Your task to perform on an android device: Go to display settings Image 0: 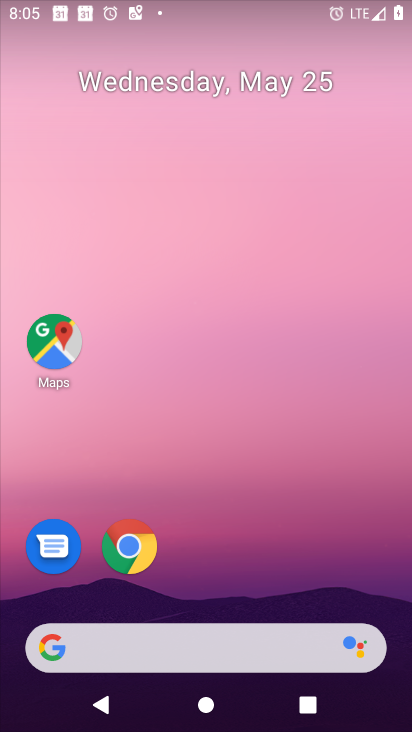
Step 0: drag from (364, 570) to (380, 224)
Your task to perform on an android device: Go to display settings Image 1: 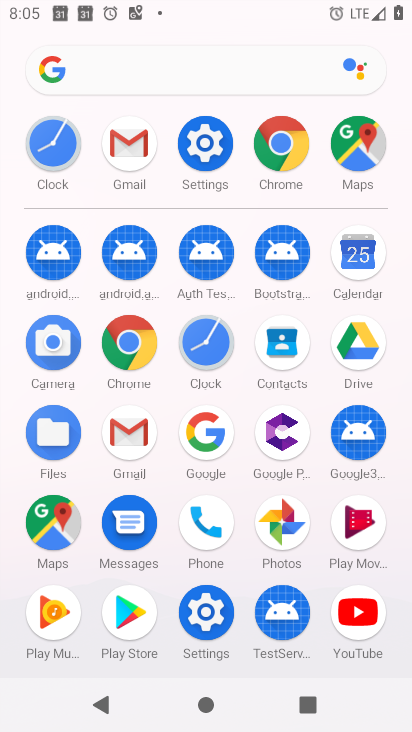
Step 1: click (208, 618)
Your task to perform on an android device: Go to display settings Image 2: 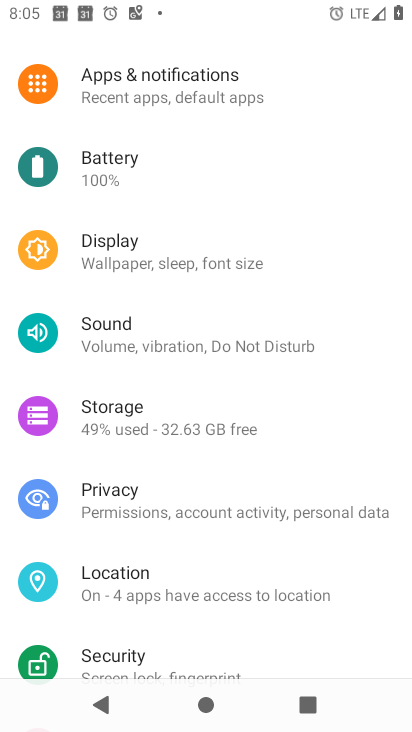
Step 2: drag from (216, 600) to (270, 225)
Your task to perform on an android device: Go to display settings Image 3: 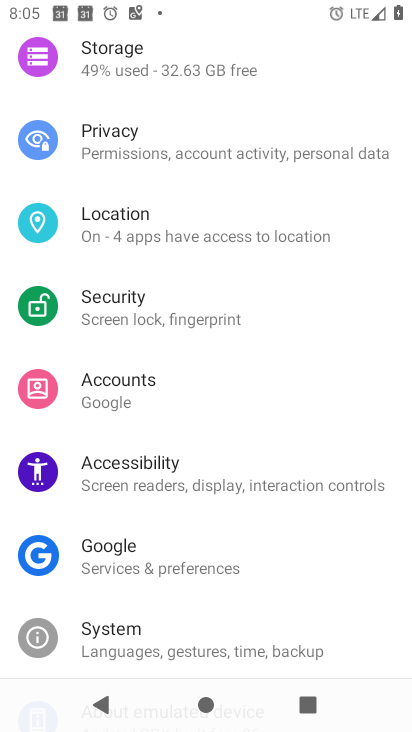
Step 3: drag from (313, 477) to (343, 300)
Your task to perform on an android device: Go to display settings Image 4: 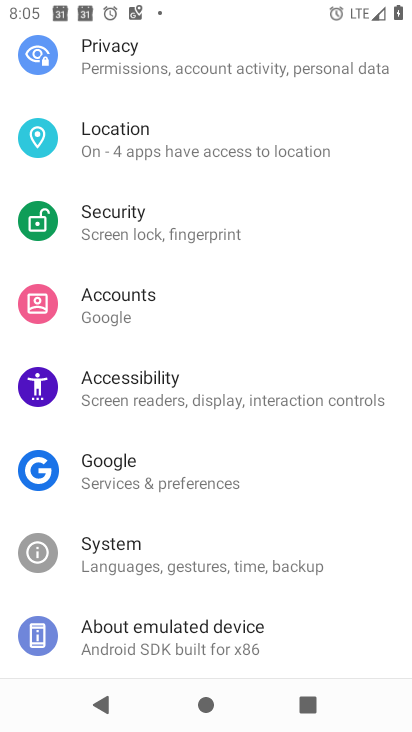
Step 4: drag from (312, 513) to (314, 314)
Your task to perform on an android device: Go to display settings Image 5: 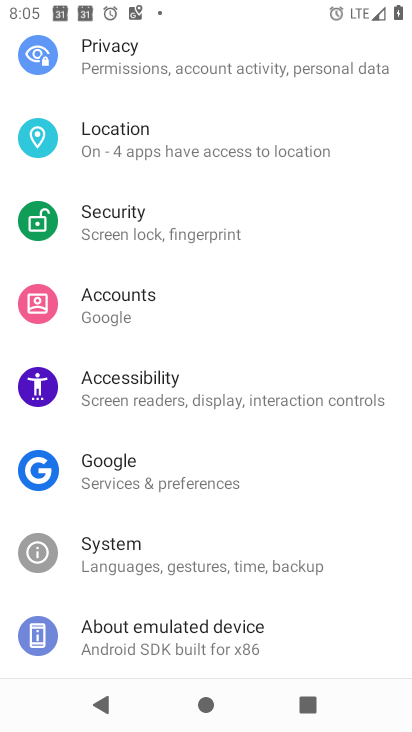
Step 5: drag from (338, 310) to (333, 427)
Your task to perform on an android device: Go to display settings Image 6: 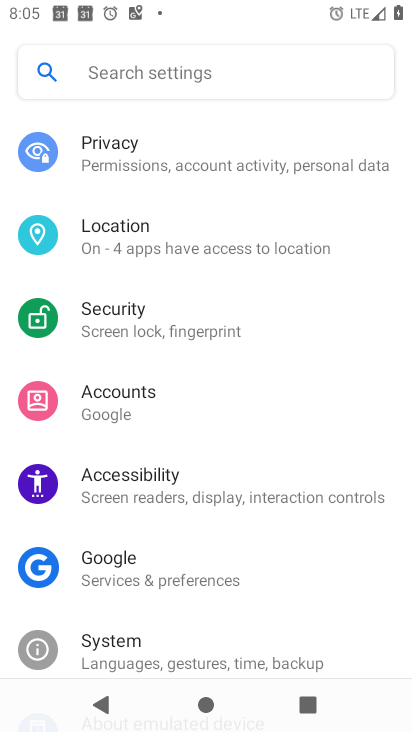
Step 6: drag from (332, 298) to (335, 362)
Your task to perform on an android device: Go to display settings Image 7: 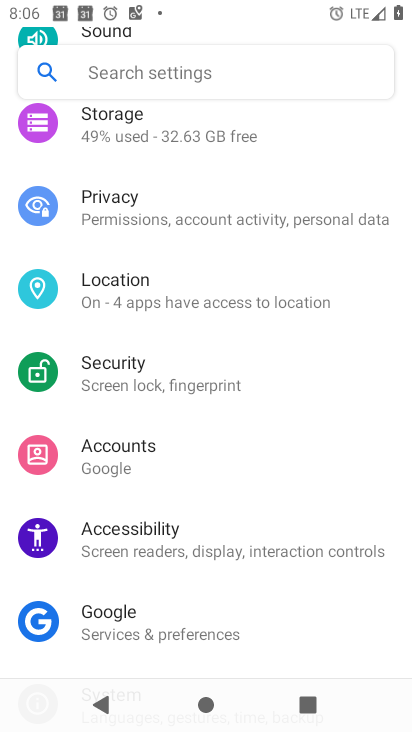
Step 7: drag from (351, 279) to (346, 385)
Your task to perform on an android device: Go to display settings Image 8: 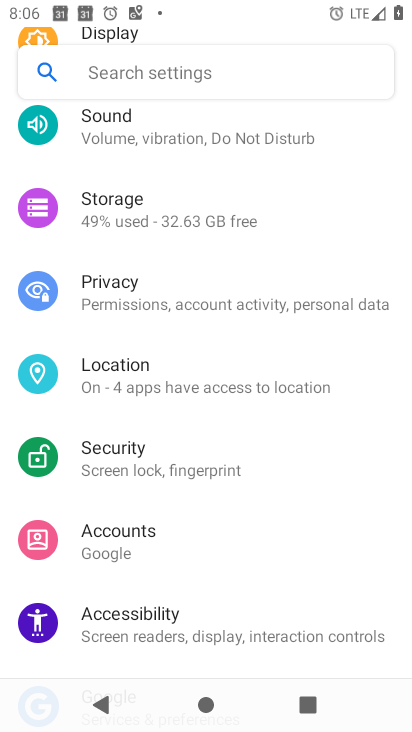
Step 8: drag from (348, 276) to (359, 405)
Your task to perform on an android device: Go to display settings Image 9: 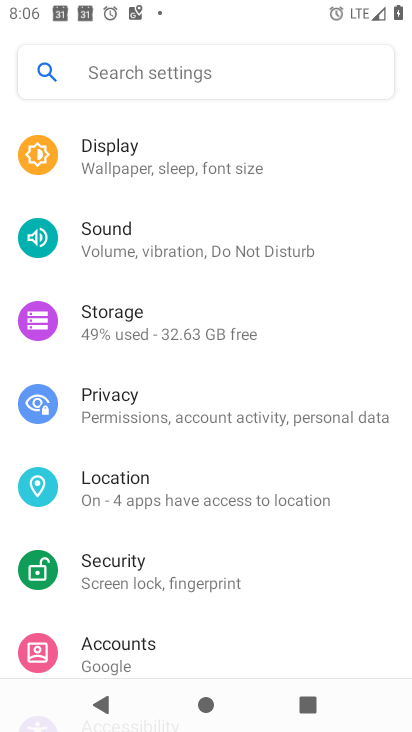
Step 9: drag from (359, 292) to (360, 385)
Your task to perform on an android device: Go to display settings Image 10: 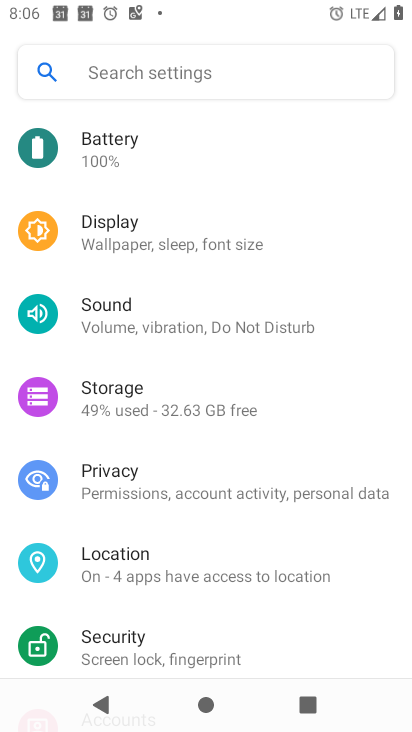
Step 10: drag from (371, 270) to (377, 391)
Your task to perform on an android device: Go to display settings Image 11: 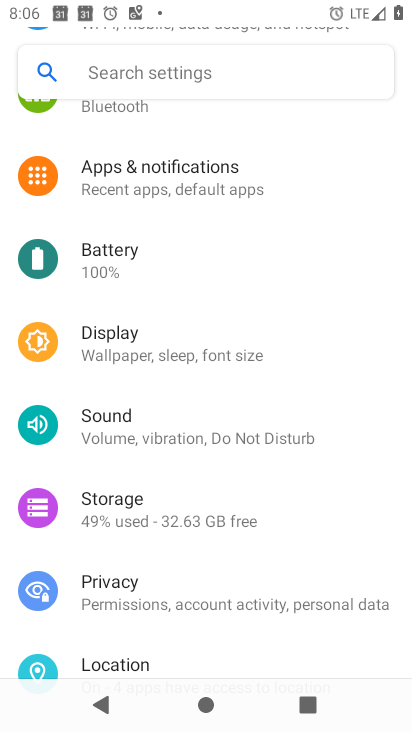
Step 11: drag from (363, 282) to (363, 385)
Your task to perform on an android device: Go to display settings Image 12: 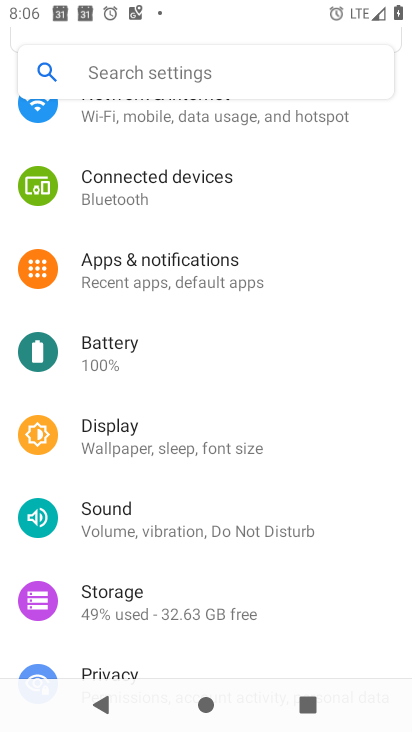
Step 12: drag from (355, 274) to (362, 444)
Your task to perform on an android device: Go to display settings Image 13: 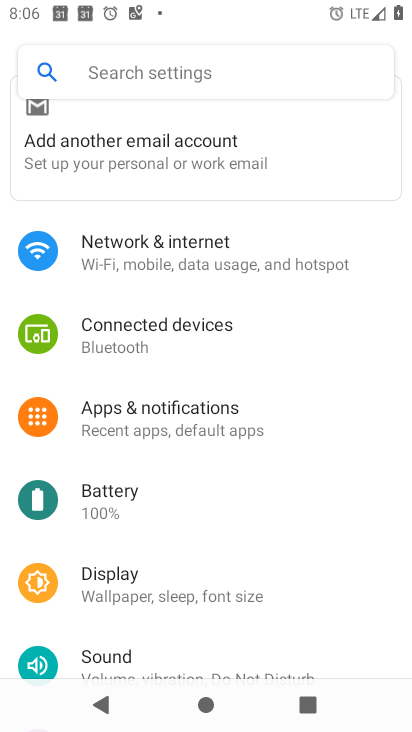
Step 13: click (135, 579)
Your task to perform on an android device: Go to display settings Image 14: 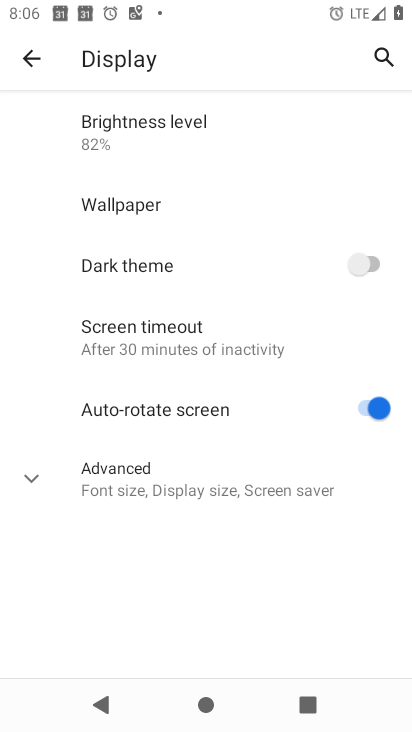
Step 14: task complete